Your task to perform on an android device: uninstall "VLC for Android" Image 0: 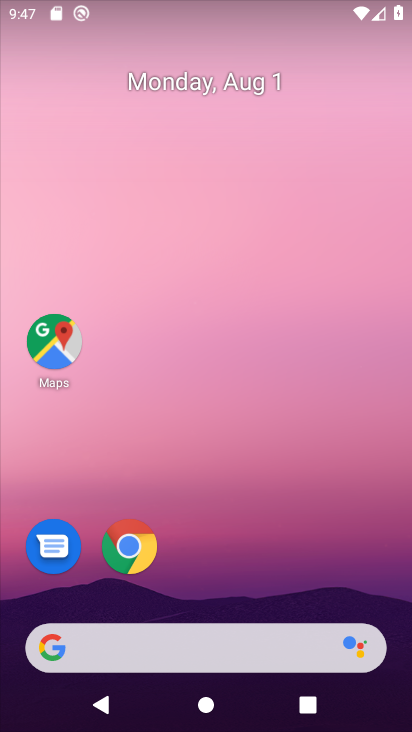
Step 0: press home button
Your task to perform on an android device: uninstall "VLC for Android" Image 1: 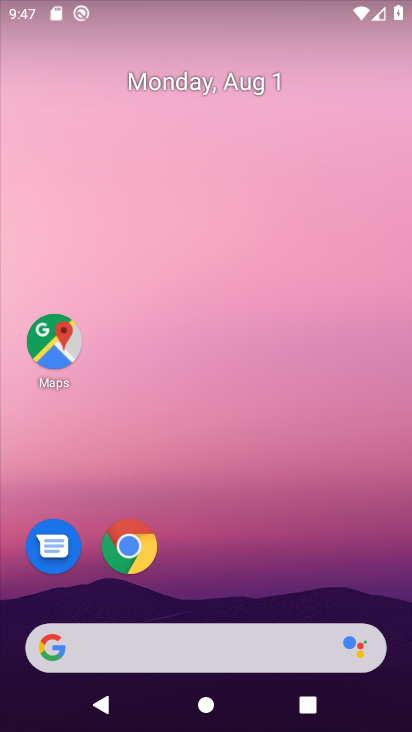
Step 1: drag from (219, 601) to (233, 2)
Your task to perform on an android device: uninstall "VLC for Android" Image 2: 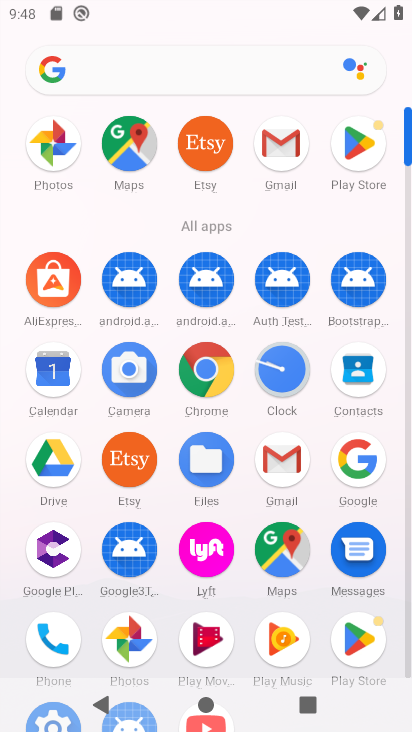
Step 2: click (353, 137)
Your task to perform on an android device: uninstall "VLC for Android" Image 3: 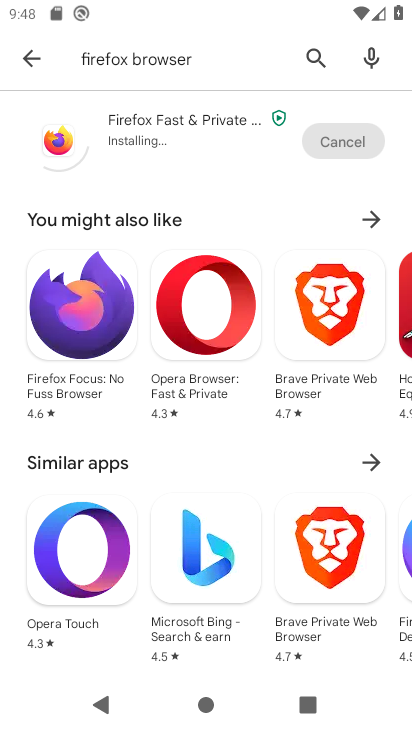
Step 3: click (36, 66)
Your task to perform on an android device: uninstall "VLC for Android" Image 4: 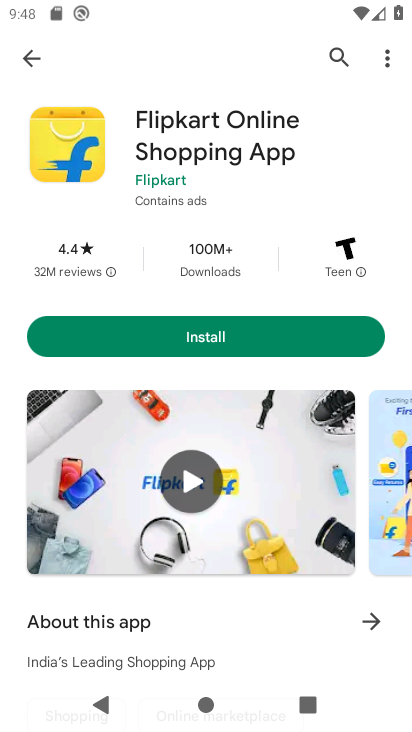
Step 4: click (338, 50)
Your task to perform on an android device: uninstall "VLC for Android" Image 5: 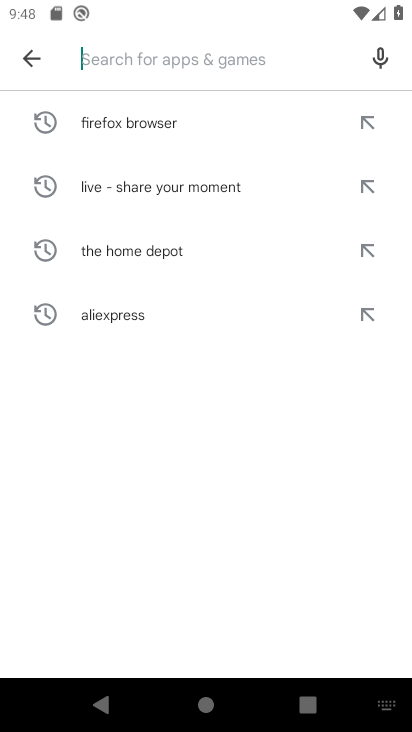
Step 5: type "VLC for Android"
Your task to perform on an android device: uninstall "VLC for Android" Image 6: 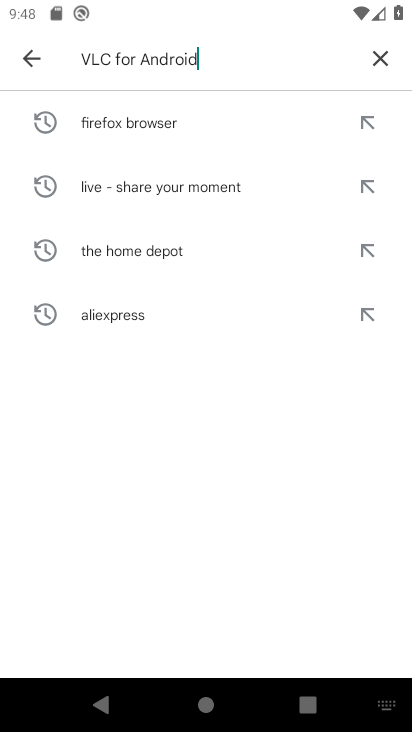
Step 6: type ""
Your task to perform on an android device: uninstall "VLC for Android" Image 7: 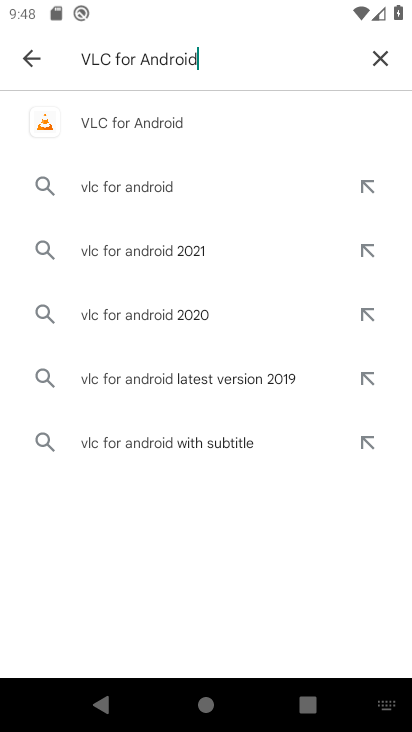
Step 7: click (70, 123)
Your task to perform on an android device: uninstall "VLC for Android" Image 8: 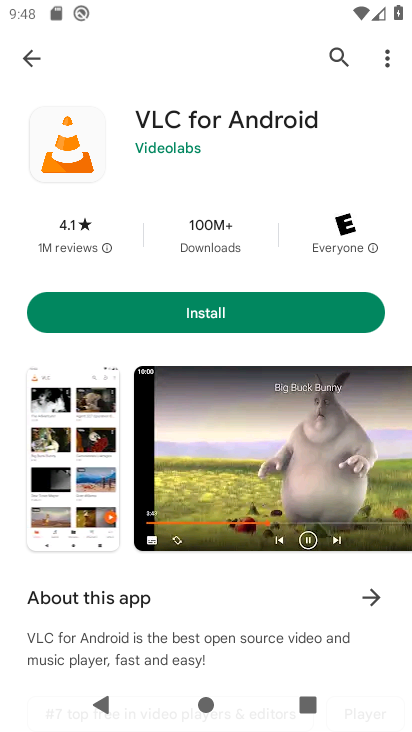
Step 8: task complete